Your task to perform on an android device: set the stopwatch Image 0: 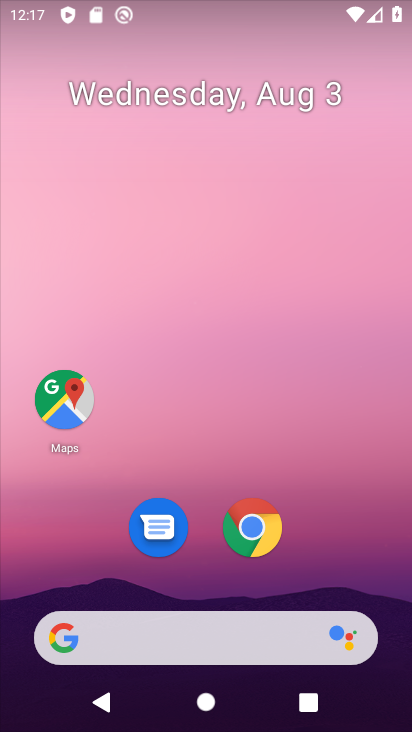
Step 0: drag from (198, 564) to (225, 163)
Your task to perform on an android device: set the stopwatch Image 1: 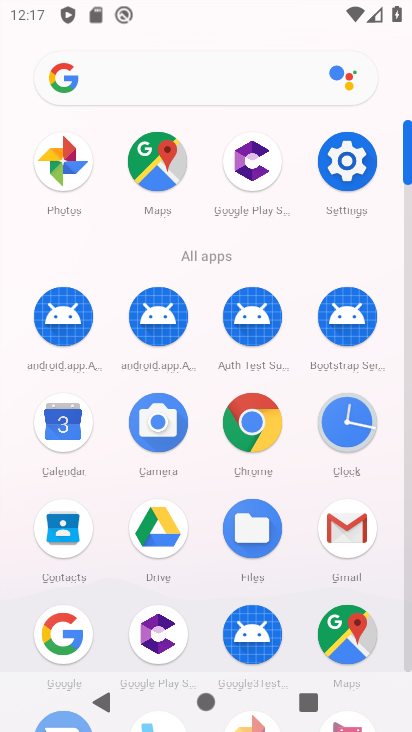
Step 1: click (350, 434)
Your task to perform on an android device: set the stopwatch Image 2: 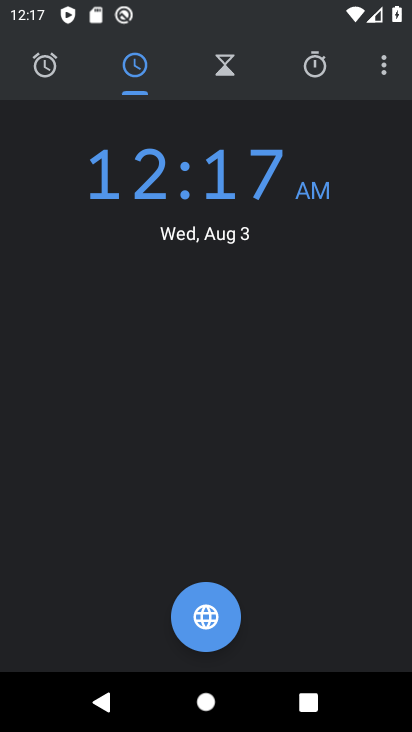
Step 2: click (322, 76)
Your task to perform on an android device: set the stopwatch Image 3: 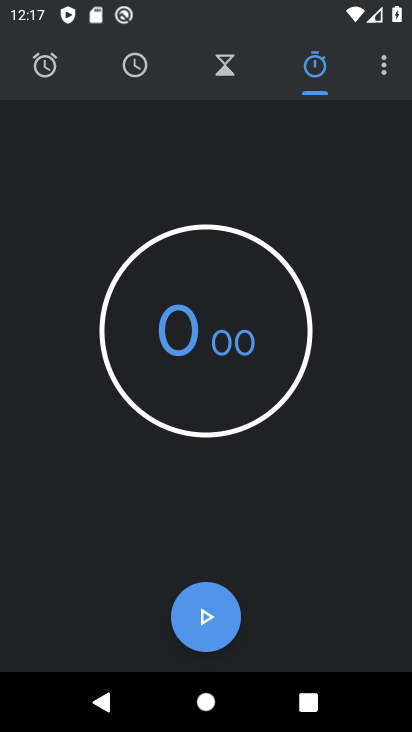
Step 3: click (210, 613)
Your task to perform on an android device: set the stopwatch Image 4: 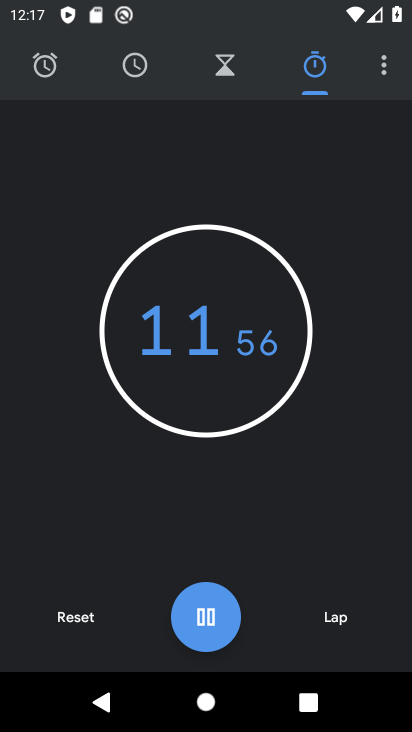
Step 4: task complete